Your task to perform on an android device: Go to Wikipedia Image 0: 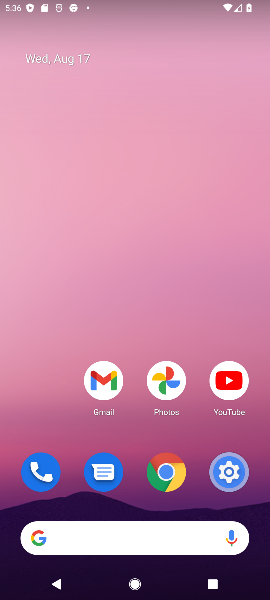
Step 0: click (156, 477)
Your task to perform on an android device: Go to Wikipedia Image 1: 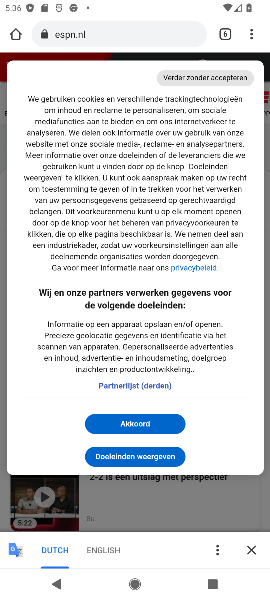
Step 1: click (137, 422)
Your task to perform on an android device: Go to Wikipedia Image 2: 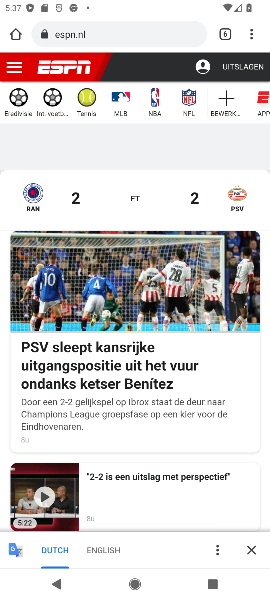
Step 2: click (231, 38)
Your task to perform on an android device: Go to Wikipedia Image 3: 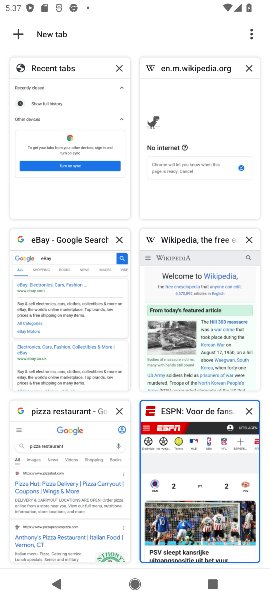
Step 3: click (15, 31)
Your task to perform on an android device: Go to Wikipedia Image 4: 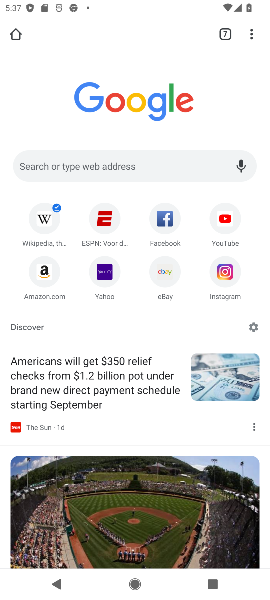
Step 4: click (36, 224)
Your task to perform on an android device: Go to Wikipedia Image 5: 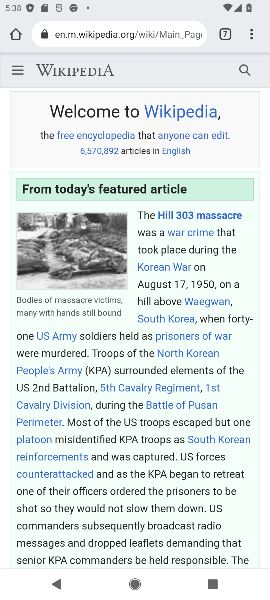
Step 5: task complete